Your task to perform on an android device: refresh tabs in the chrome app Image 0: 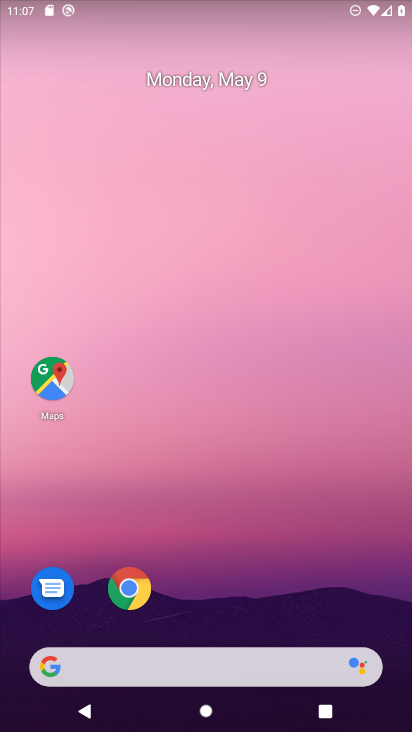
Step 0: click (139, 575)
Your task to perform on an android device: refresh tabs in the chrome app Image 1: 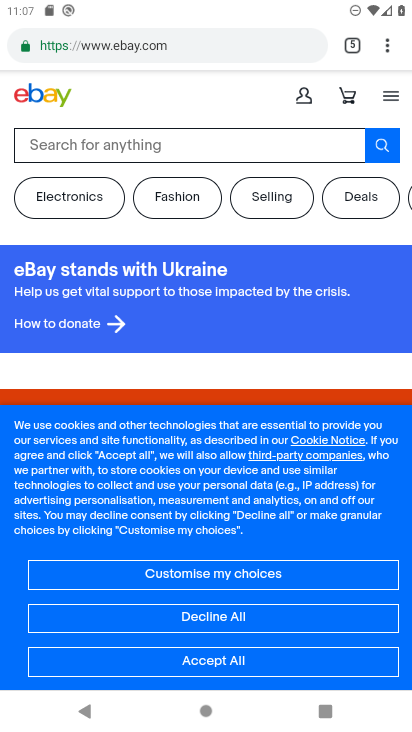
Step 1: click (345, 45)
Your task to perform on an android device: refresh tabs in the chrome app Image 2: 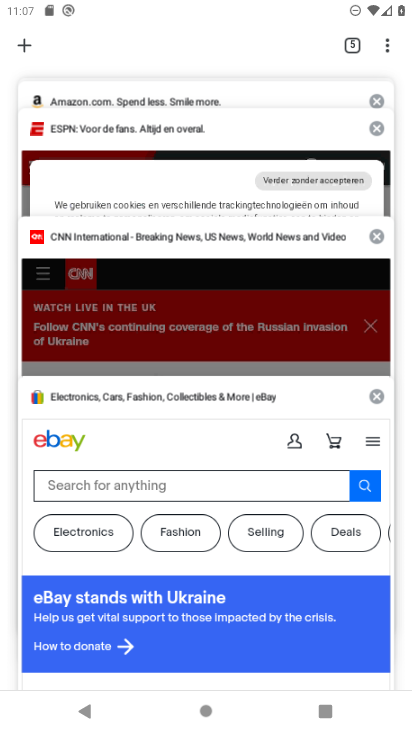
Step 2: click (38, 43)
Your task to perform on an android device: refresh tabs in the chrome app Image 3: 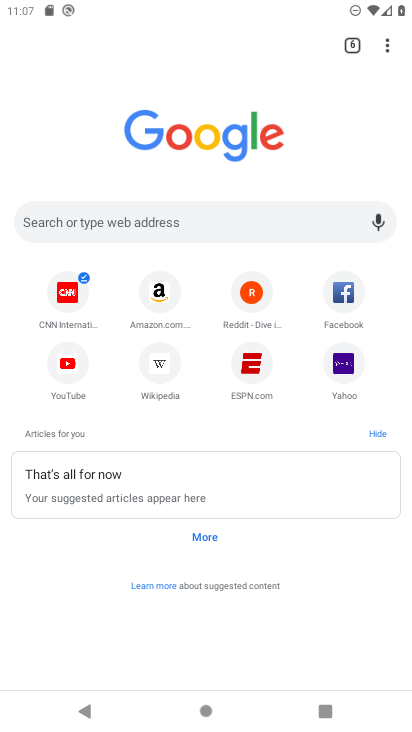
Step 3: click (158, 288)
Your task to perform on an android device: refresh tabs in the chrome app Image 4: 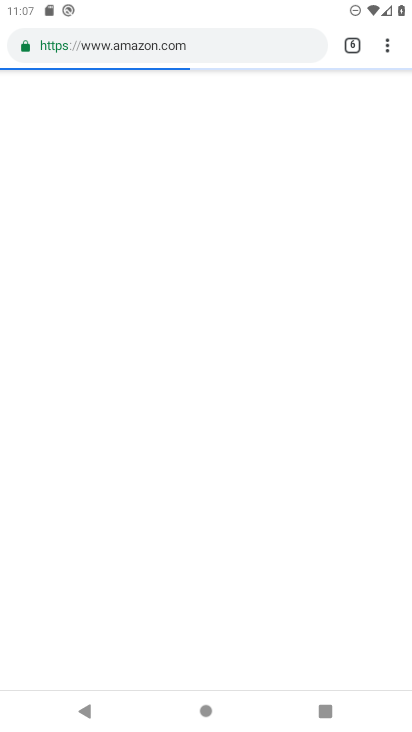
Step 4: task complete